Your task to perform on an android device: Open Google Maps and go to "Timeline" Image 0: 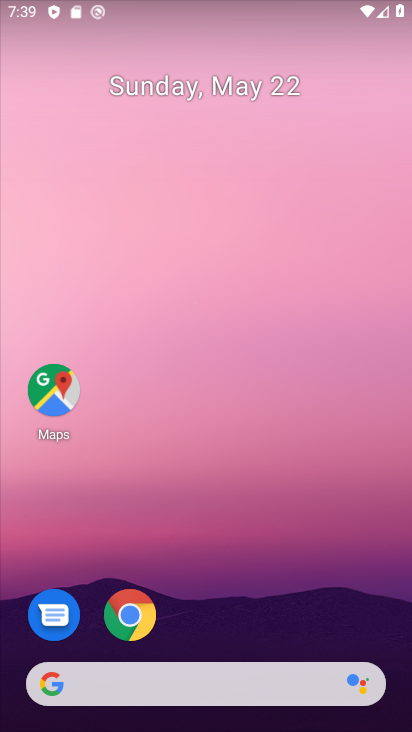
Step 0: drag from (224, 628) to (156, 314)
Your task to perform on an android device: Open Google Maps and go to "Timeline" Image 1: 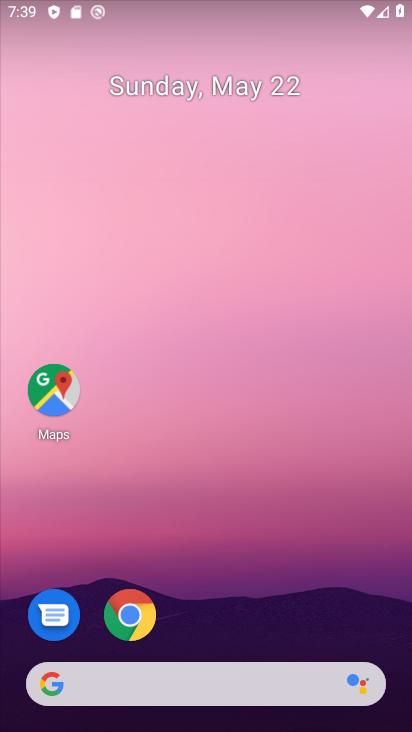
Step 1: click (45, 402)
Your task to perform on an android device: Open Google Maps and go to "Timeline" Image 2: 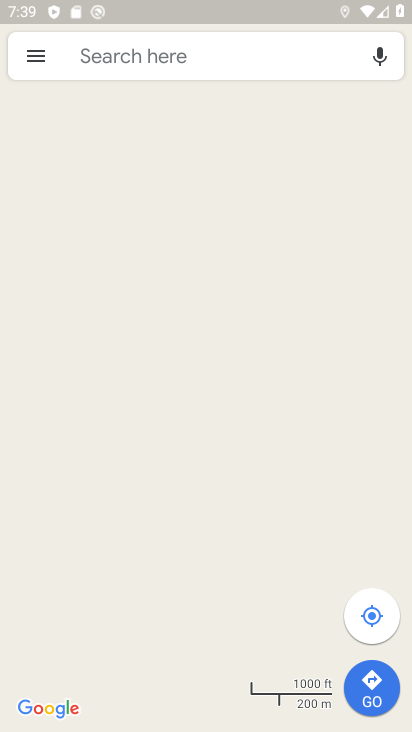
Step 2: click (36, 52)
Your task to perform on an android device: Open Google Maps and go to "Timeline" Image 3: 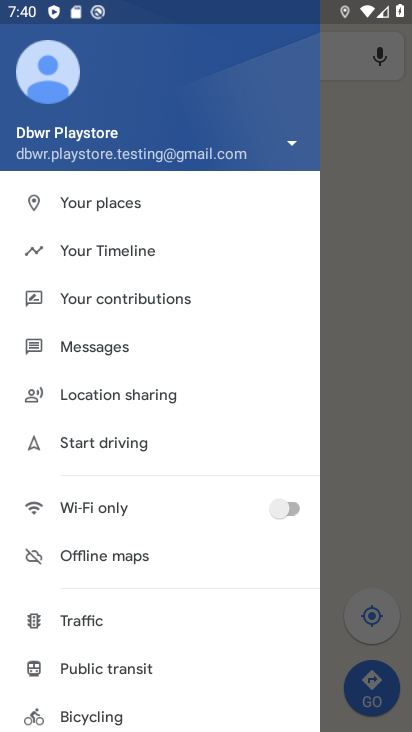
Step 3: click (53, 237)
Your task to perform on an android device: Open Google Maps and go to "Timeline" Image 4: 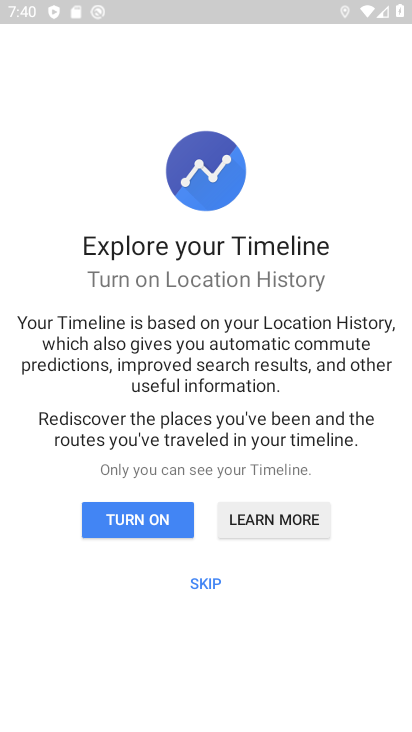
Step 4: click (208, 585)
Your task to perform on an android device: Open Google Maps and go to "Timeline" Image 5: 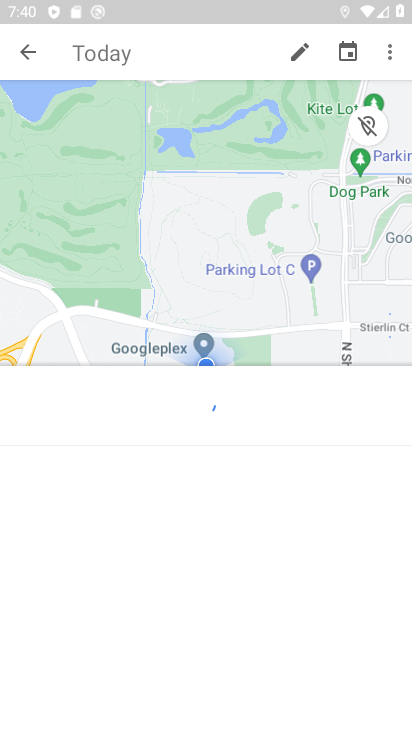
Step 5: task complete